Your task to perform on an android device: What's on my calendar tomorrow? Image 0: 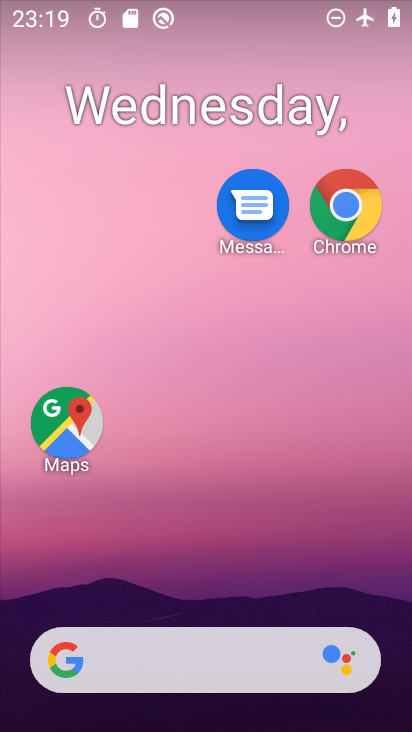
Step 0: drag from (239, 344) to (275, 120)
Your task to perform on an android device: What's on my calendar tomorrow? Image 1: 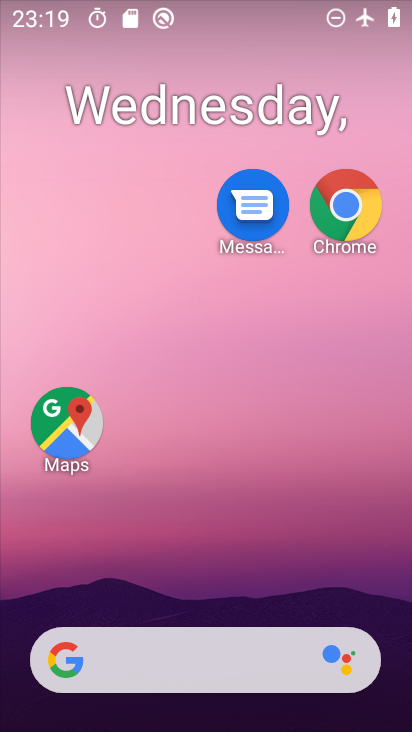
Step 1: drag from (181, 580) to (285, 30)
Your task to perform on an android device: What's on my calendar tomorrow? Image 2: 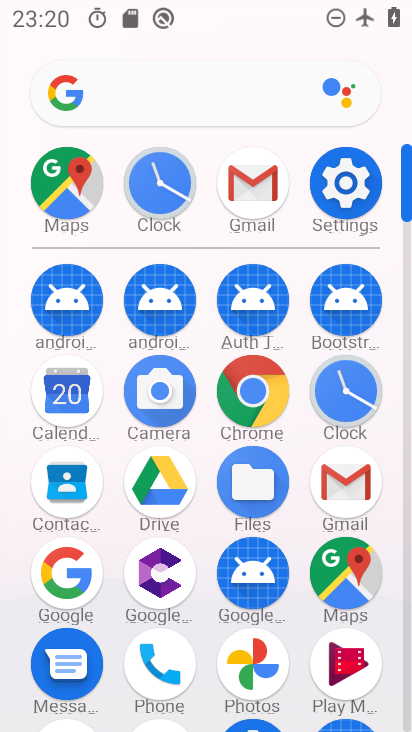
Step 2: click (66, 375)
Your task to perform on an android device: What's on my calendar tomorrow? Image 3: 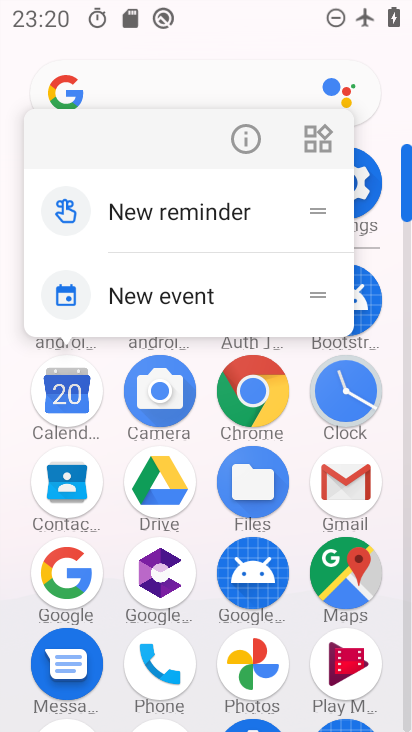
Step 3: click (248, 136)
Your task to perform on an android device: What's on my calendar tomorrow? Image 4: 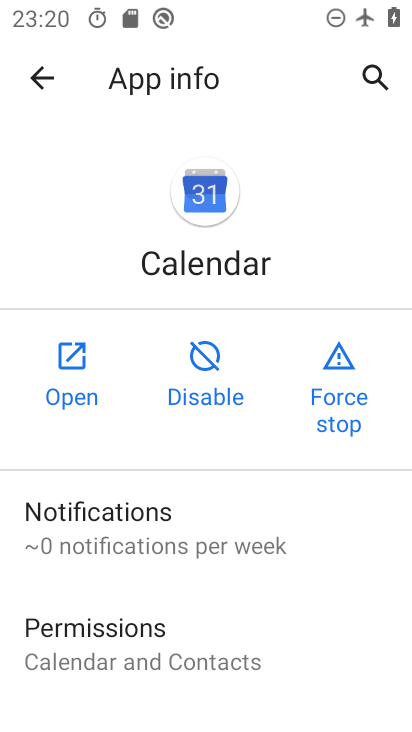
Step 4: click (69, 375)
Your task to perform on an android device: What's on my calendar tomorrow? Image 5: 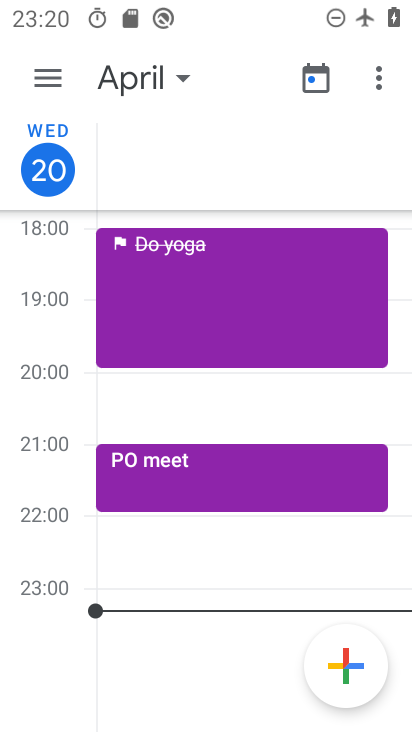
Step 5: click (164, 89)
Your task to perform on an android device: What's on my calendar tomorrow? Image 6: 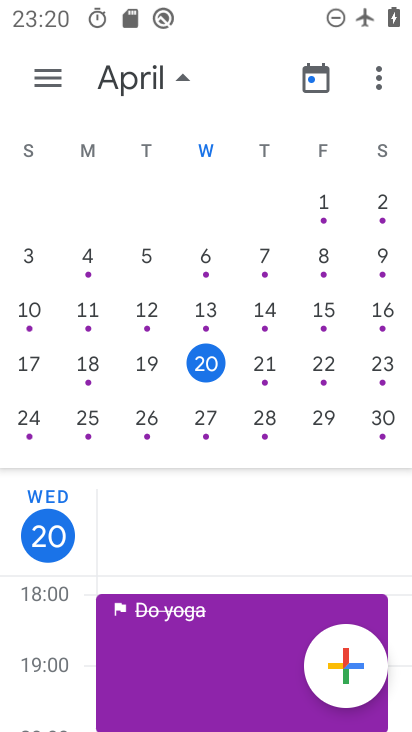
Step 6: click (266, 366)
Your task to perform on an android device: What's on my calendar tomorrow? Image 7: 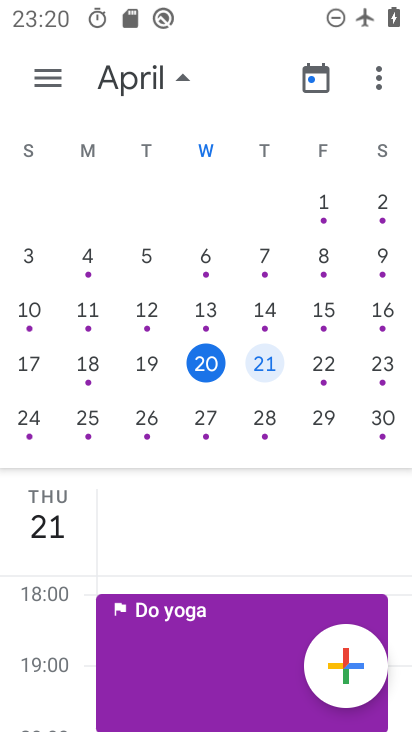
Step 7: task complete